Your task to perform on an android device: Search for Mexican restaurants on Maps Image 0: 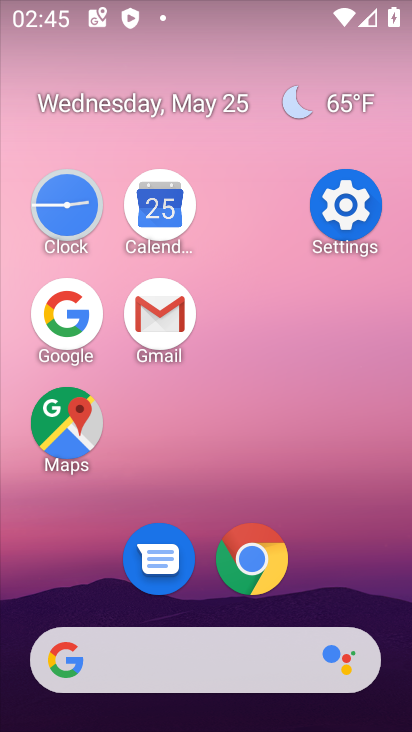
Step 0: click (79, 444)
Your task to perform on an android device: Search for Mexican restaurants on Maps Image 1: 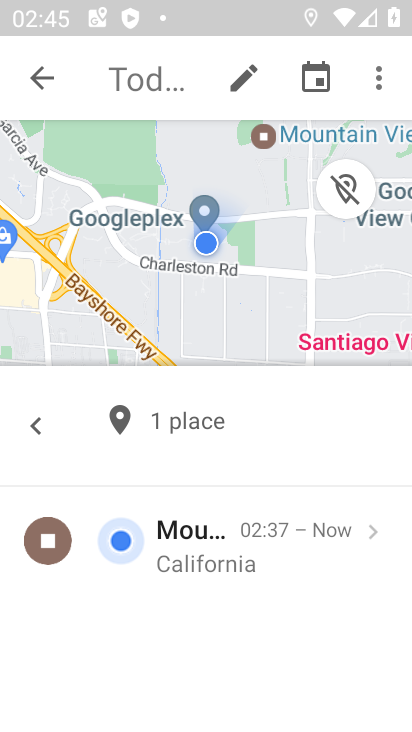
Step 1: click (42, 72)
Your task to perform on an android device: Search for Mexican restaurants on Maps Image 2: 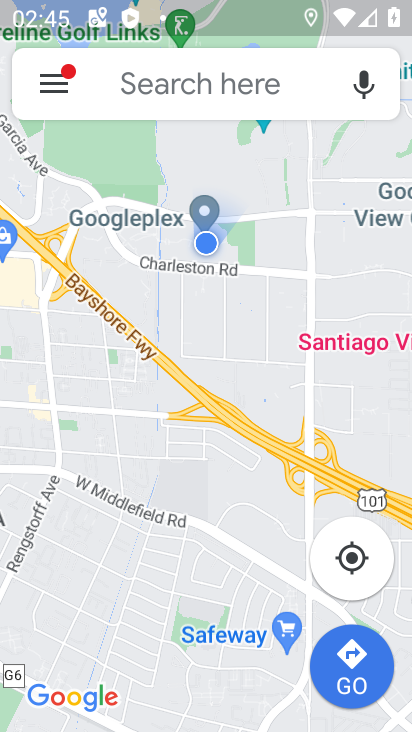
Step 2: click (160, 87)
Your task to perform on an android device: Search for Mexican restaurants on Maps Image 3: 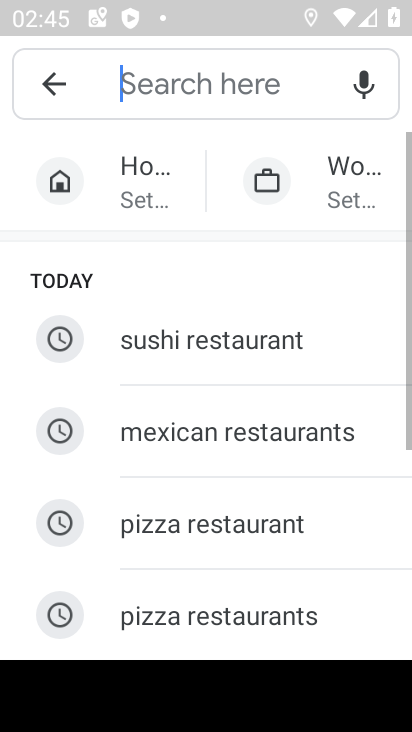
Step 3: click (191, 428)
Your task to perform on an android device: Search for Mexican restaurants on Maps Image 4: 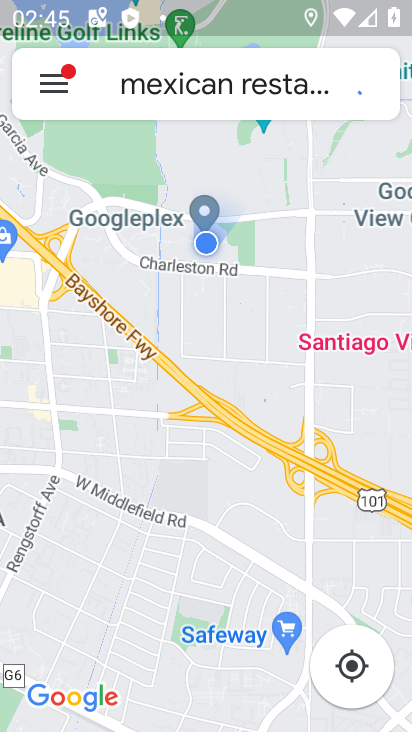
Step 4: task complete